Your task to perform on an android device: move a message to another label in the gmail app Image 0: 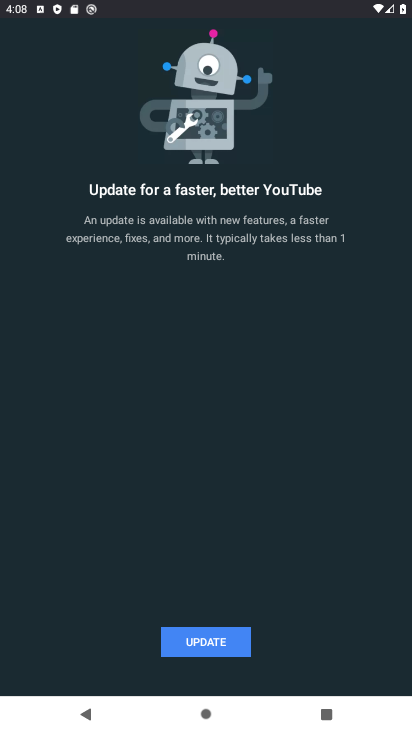
Step 0: press home button
Your task to perform on an android device: move a message to another label in the gmail app Image 1: 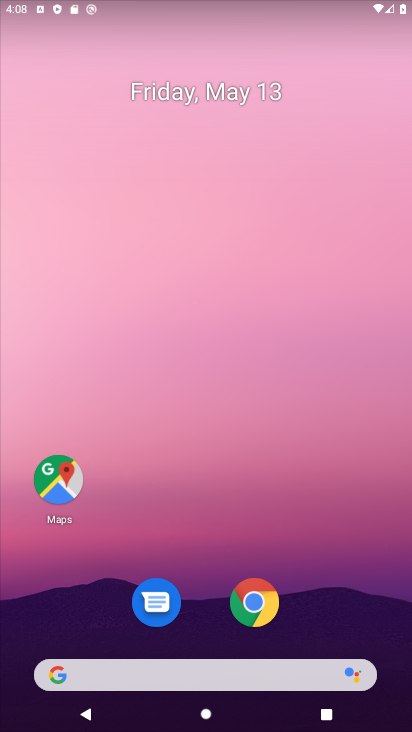
Step 1: drag from (139, 655) to (161, 343)
Your task to perform on an android device: move a message to another label in the gmail app Image 2: 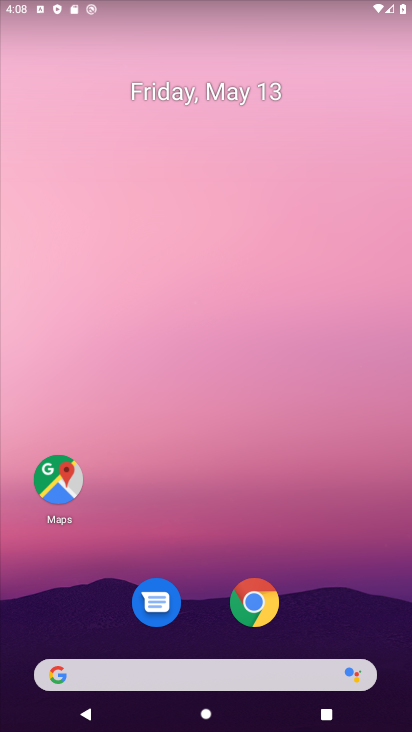
Step 2: drag from (216, 656) to (252, 197)
Your task to perform on an android device: move a message to another label in the gmail app Image 3: 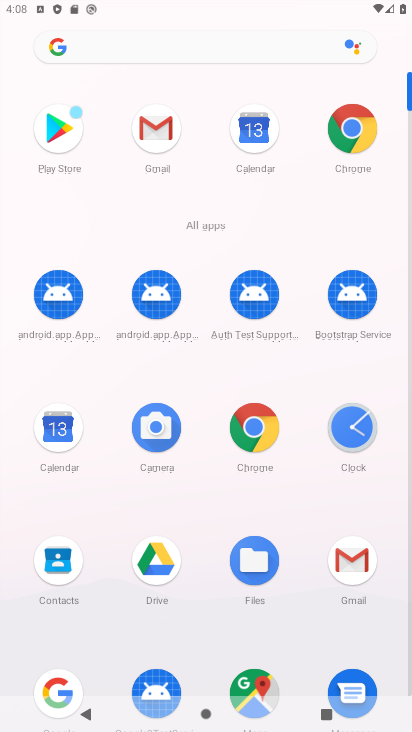
Step 3: click (154, 127)
Your task to perform on an android device: move a message to another label in the gmail app Image 4: 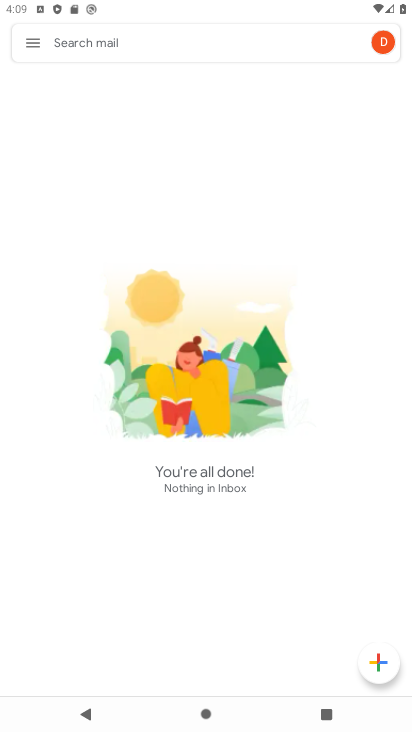
Step 4: task complete